Your task to perform on an android device: What's the weather going to be tomorrow? Image 0: 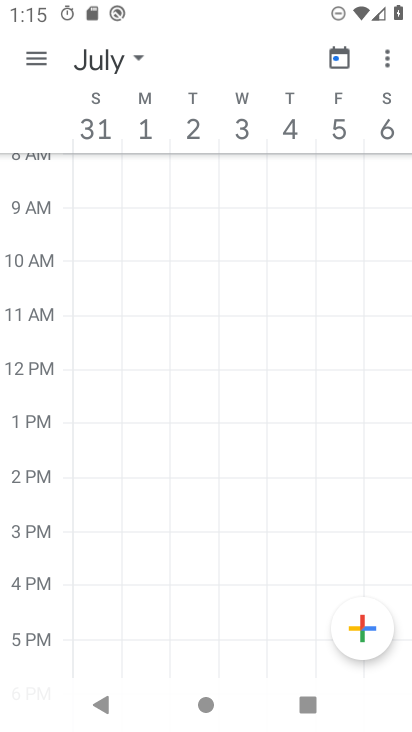
Step 0: press home button
Your task to perform on an android device: What's the weather going to be tomorrow? Image 1: 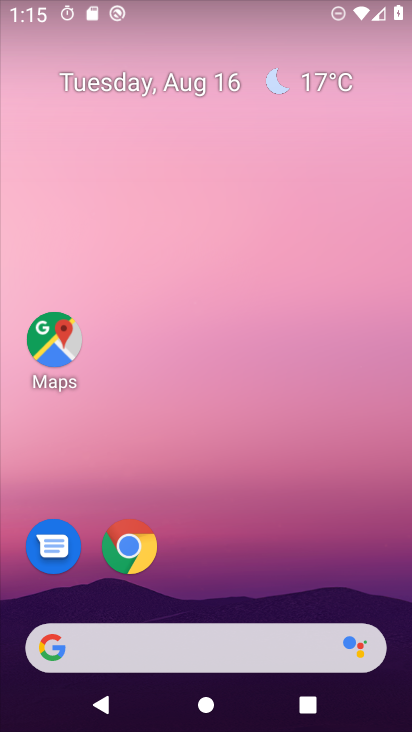
Step 1: drag from (230, 597) to (232, 103)
Your task to perform on an android device: What's the weather going to be tomorrow? Image 2: 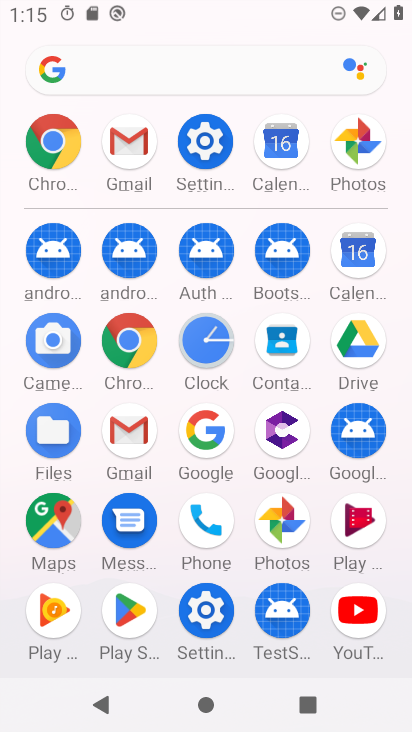
Step 2: click (203, 431)
Your task to perform on an android device: What's the weather going to be tomorrow? Image 3: 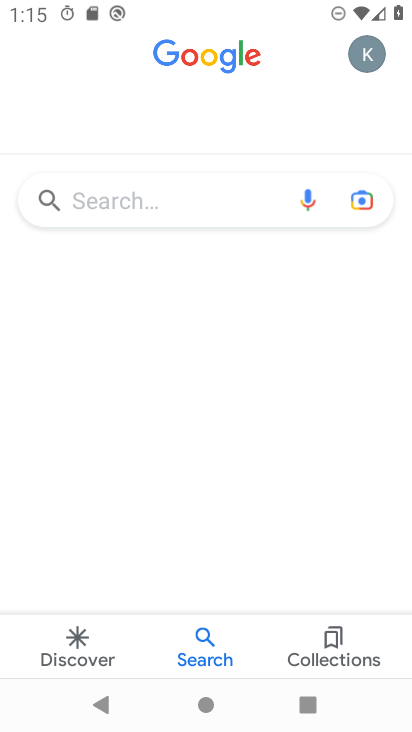
Step 3: click (151, 208)
Your task to perform on an android device: What's the weather going to be tomorrow? Image 4: 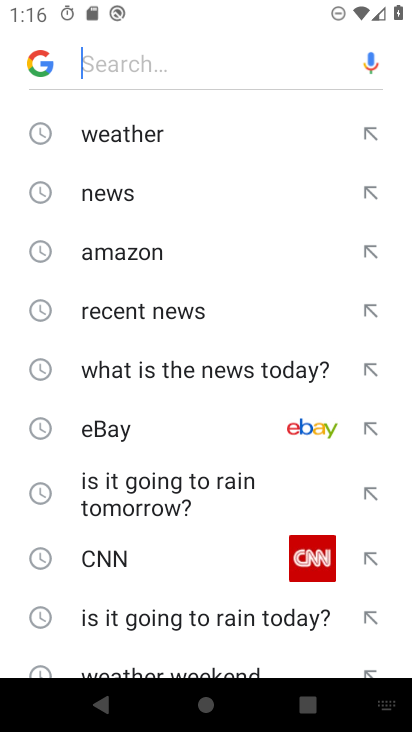
Step 4: click (124, 130)
Your task to perform on an android device: What's the weather going to be tomorrow? Image 5: 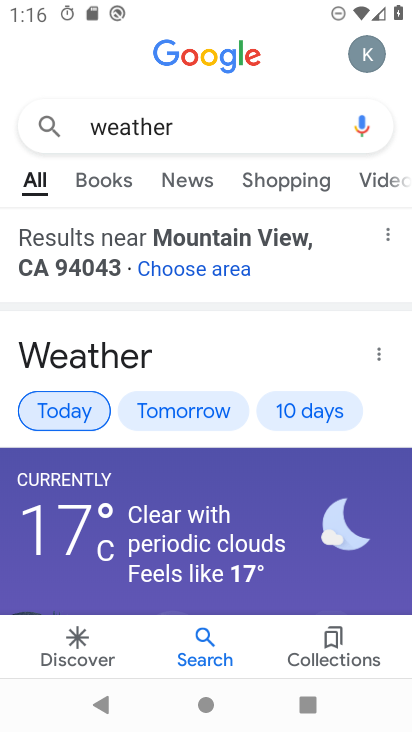
Step 5: click (194, 413)
Your task to perform on an android device: What's the weather going to be tomorrow? Image 6: 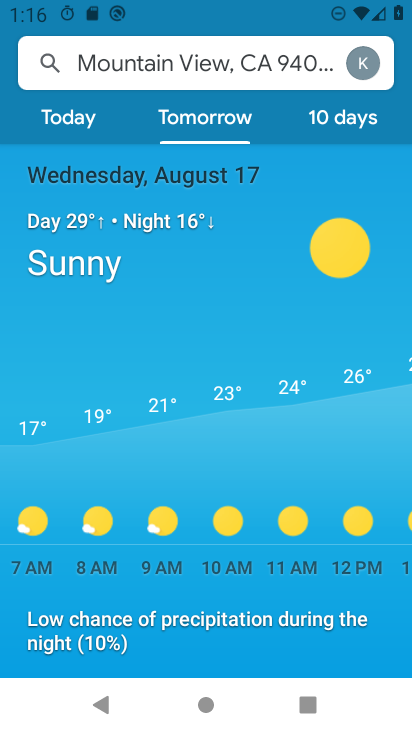
Step 6: task complete